Your task to perform on an android device: What's the weather going to be this weekend? Image 0: 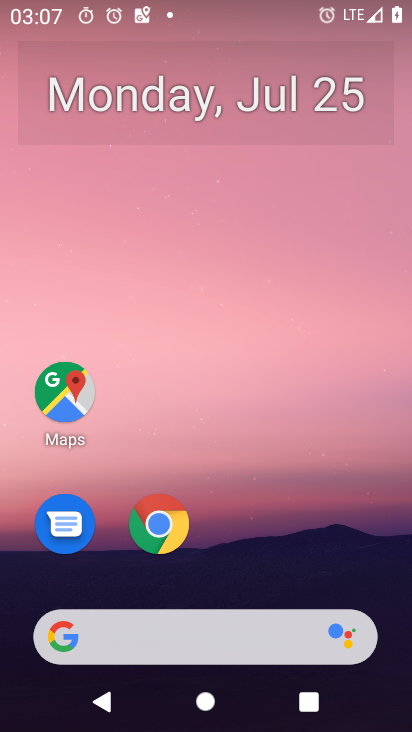
Step 0: click (62, 647)
Your task to perform on an android device: What's the weather going to be this weekend? Image 1: 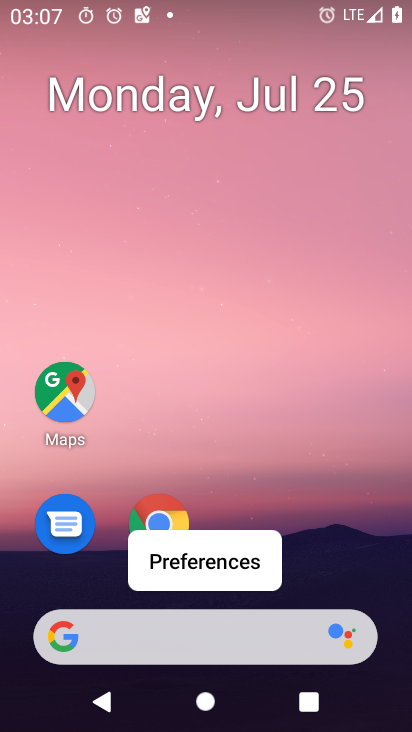
Step 1: click (62, 648)
Your task to perform on an android device: What's the weather going to be this weekend? Image 2: 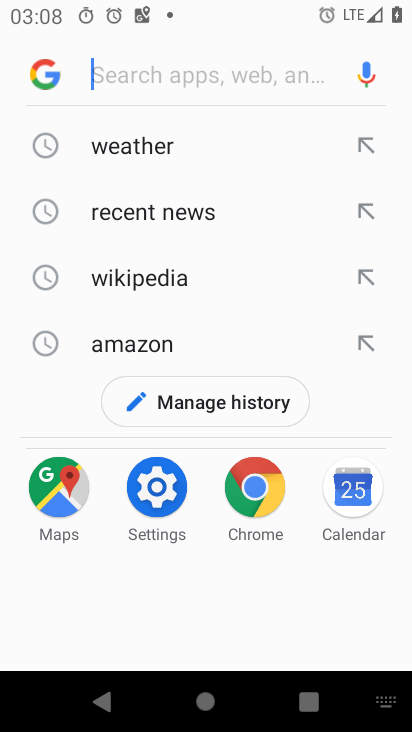
Step 2: type "weather going to be this weekend?"
Your task to perform on an android device: What's the weather going to be this weekend? Image 3: 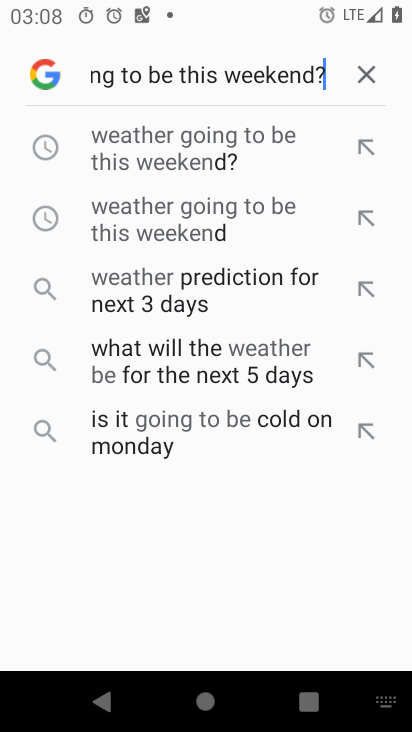
Step 3: press enter
Your task to perform on an android device: What's the weather going to be this weekend? Image 4: 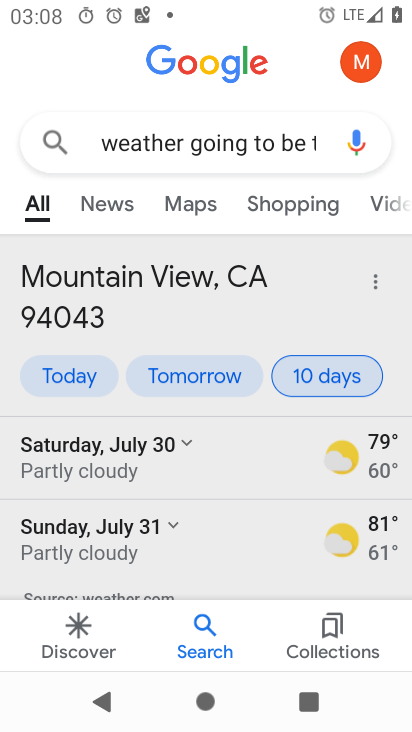
Step 4: task complete